Your task to perform on an android device: turn off javascript in the chrome app Image 0: 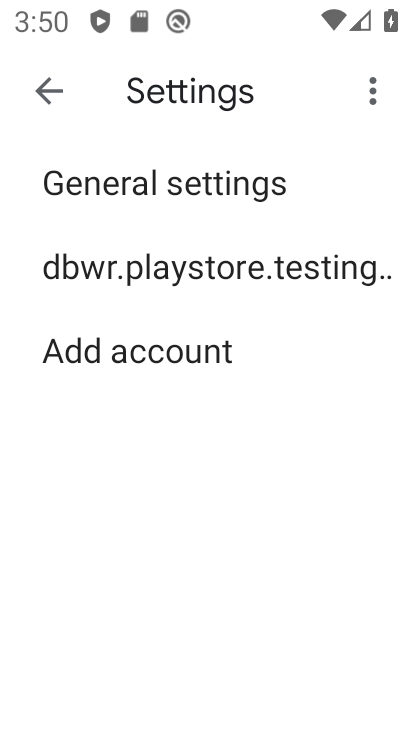
Step 0: press home button
Your task to perform on an android device: turn off javascript in the chrome app Image 1: 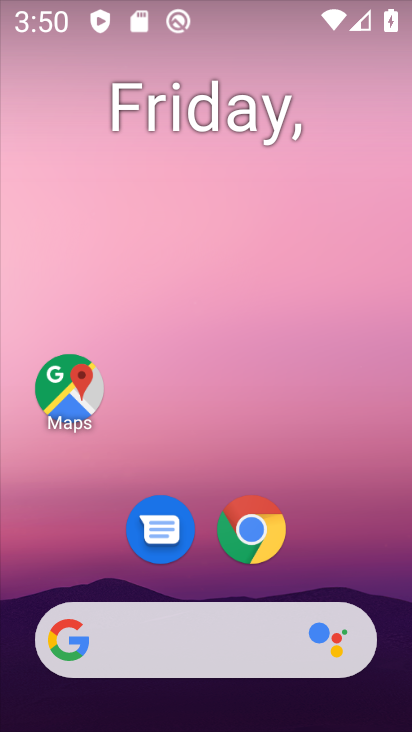
Step 1: click (250, 538)
Your task to perform on an android device: turn off javascript in the chrome app Image 2: 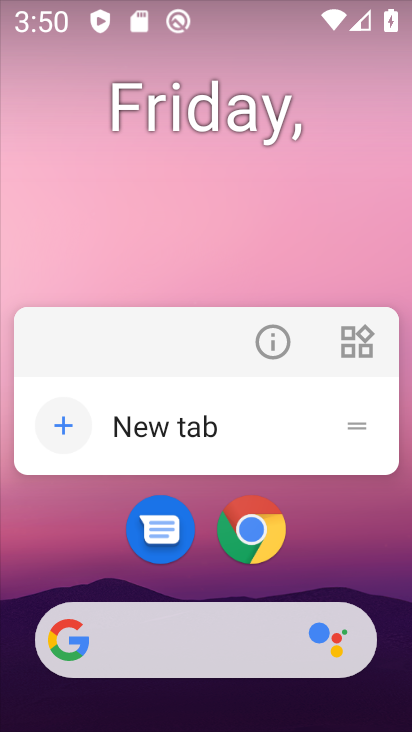
Step 2: click (251, 540)
Your task to perform on an android device: turn off javascript in the chrome app Image 3: 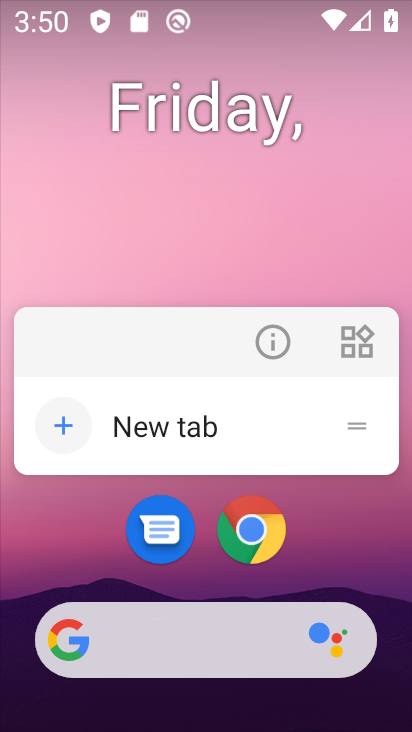
Step 3: click (256, 536)
Your task to perform on an android device: turn off javascript in the chrome app Image 4: 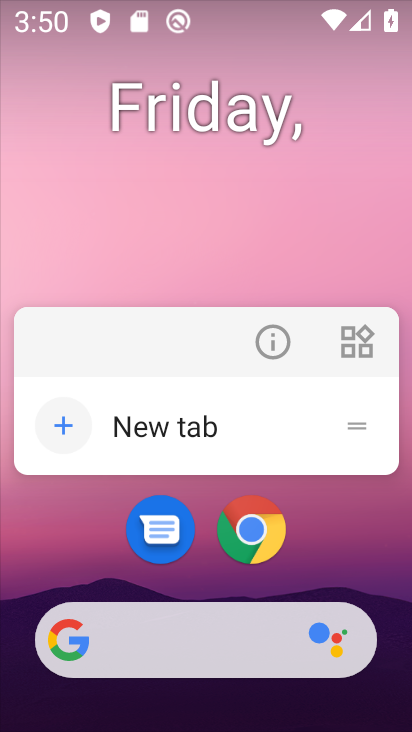
Step 4: click (262, 531)
Your task to perform on an android device: turn off javascript in the chrome app Image 5: 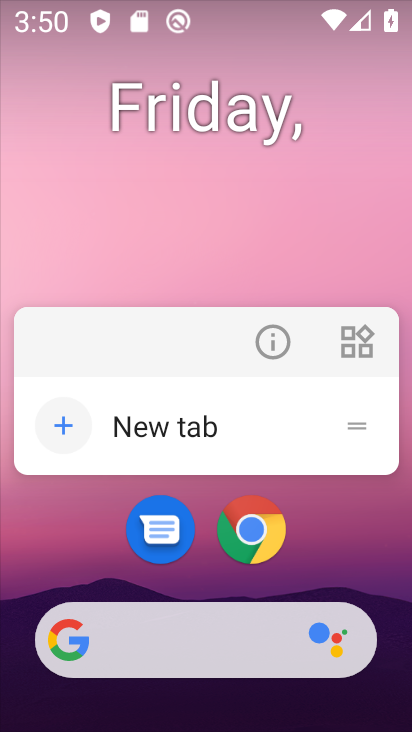
Step 5: click (262, 554)
Your task to perform on an android device: turn off javascript in the chrome app Image 6: 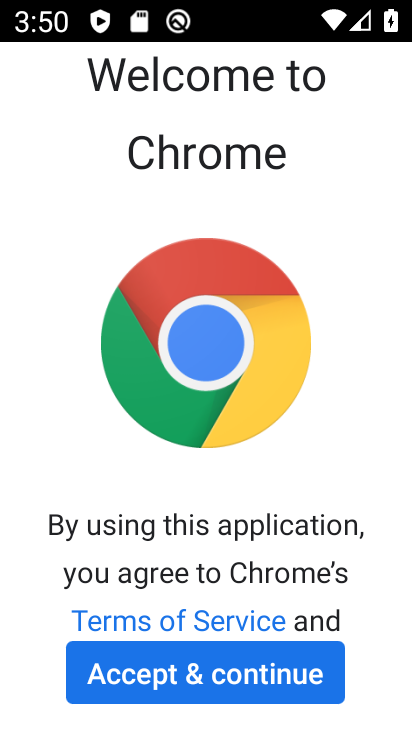
Step 6: click (279, 650)
Your task to perform on an android device: turn off javascript in the chrome app Image 7: 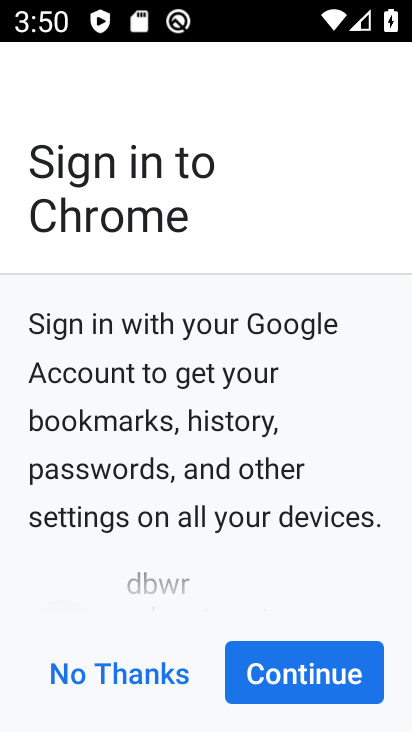
Step 7: click (294, 679)
Your task to perform on an android device: turn off javascript in the chrome app Image 8: 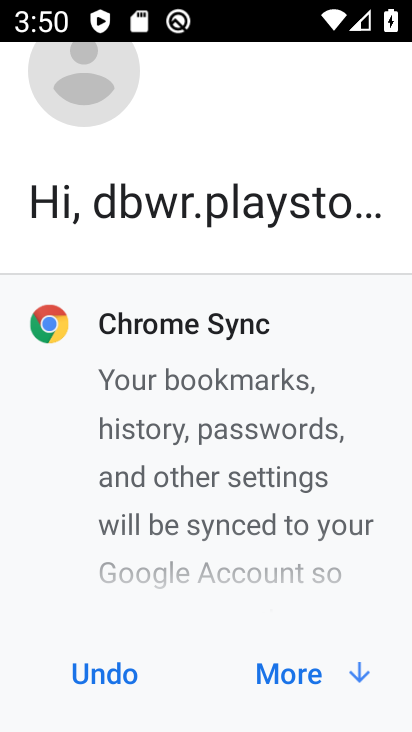
Step 8: click (357, 698)
Your task to perform on an android device: turn off javascript in the chrome app Image 9: 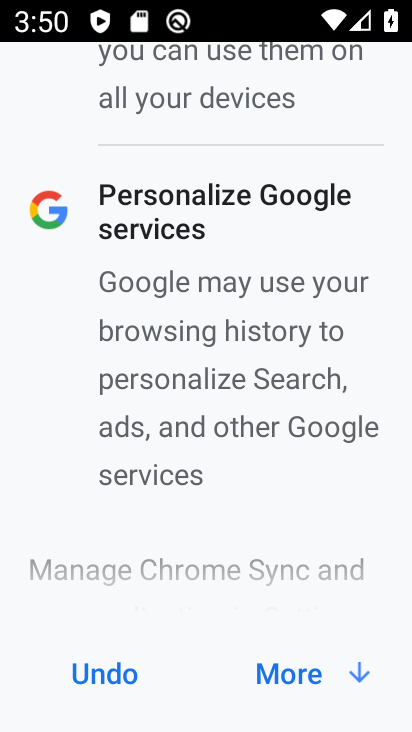
Step 9: click (336, 695)
Your task to perform on an android device: turn off javascript in the chrome app Image 10: 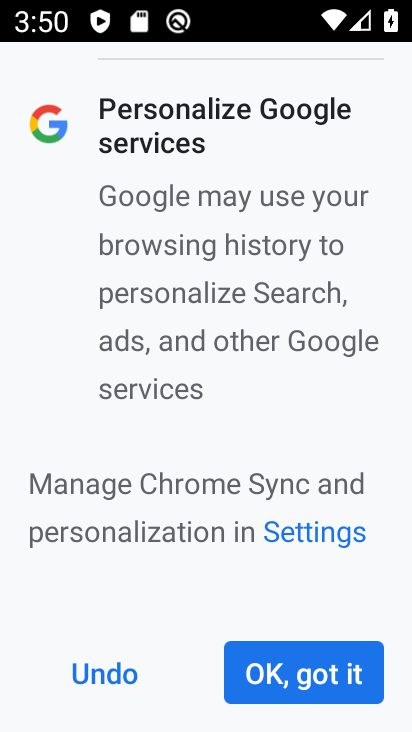
Step 10: click (335, 694)
Your task to perform on an android device: turn off javascript in the chrome app Image 11: 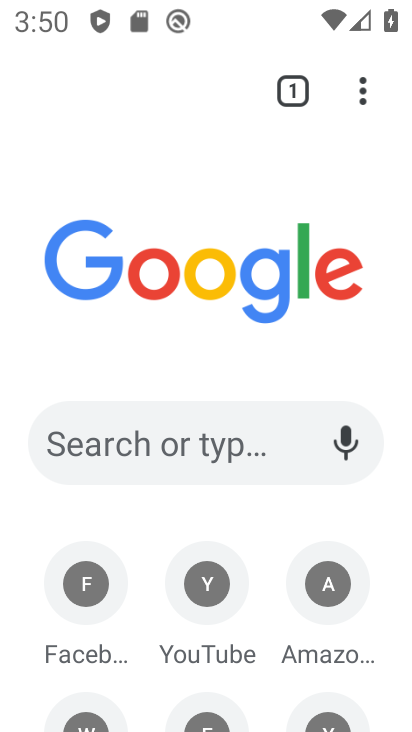
Step 11: drag from (375, 108) to (242, 572)
Your task to perform on an android device: turn off javascript in the chrome app Image 12: 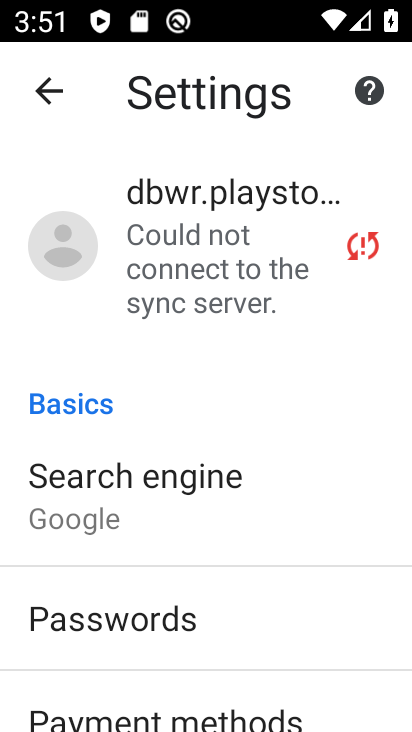
Step 12: drag from (163, 614) to (289, 212)
Your task to perform on an android device: turn off javascript in the chrome app Image 13: 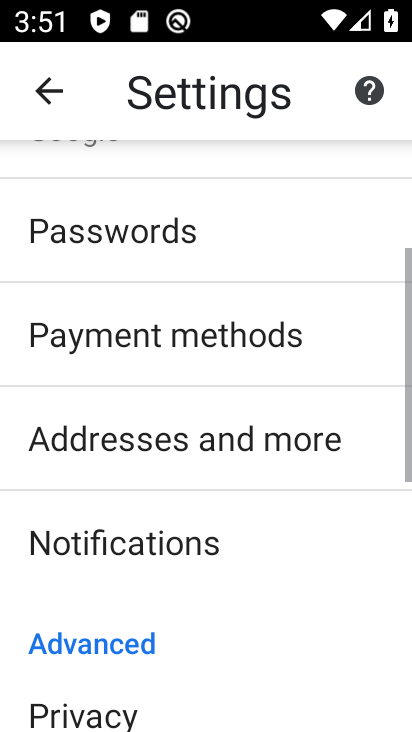
Step 13: drag from (206, 644) to (294, 272)
Your task to perform on an android device: turn off javascript in the chrome app Image 14: 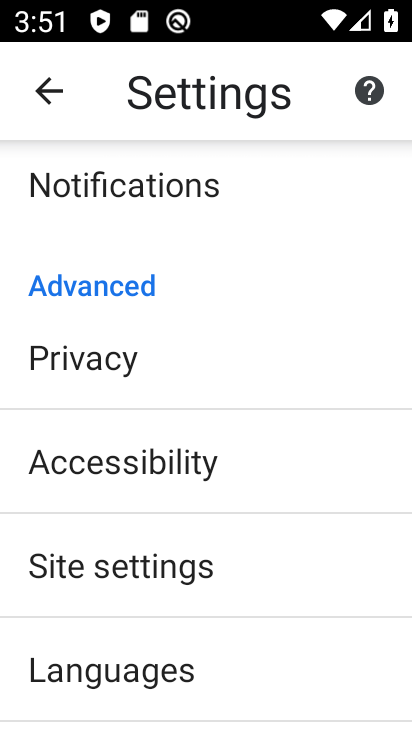
Step 14: click (175, 586)
Your task to perform on an android device: turn off javascript in the chrome app Image 15: 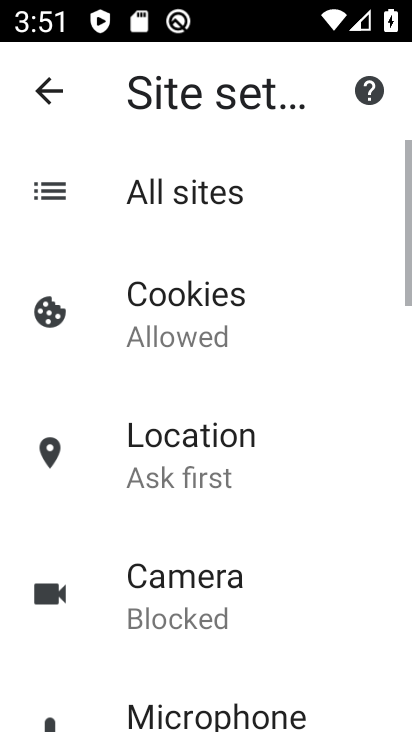
Step 15: drag from (210, 638) to (294, 239)
Your task to perform on an android device: turn off javascript in the chrome app Image 16: 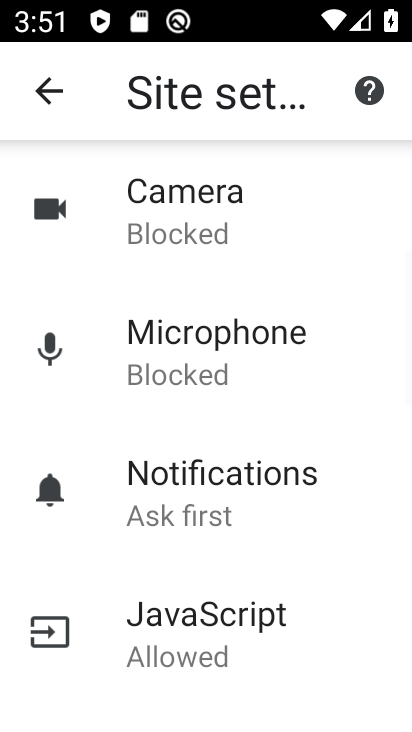
Step 16: click (253, 619)
Your task to perform on an android device: turn off javascript in the chrome app Image 17: 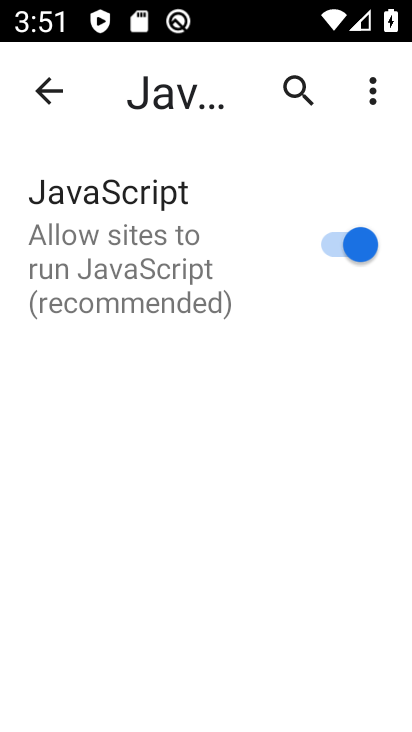
Step 17: click (349, 255)
Your task to perform on an android device: turn off javascript in the chrome app Image 18: 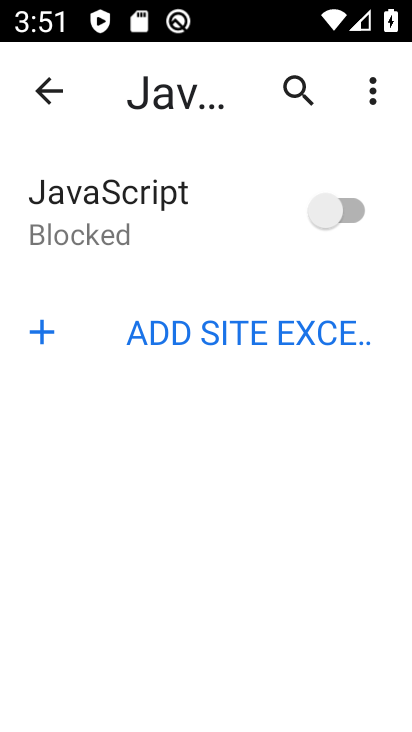
Step 18: task complete